Your task to perform on an android device: Open Google Chrome and open the bookmarks view Image 0: 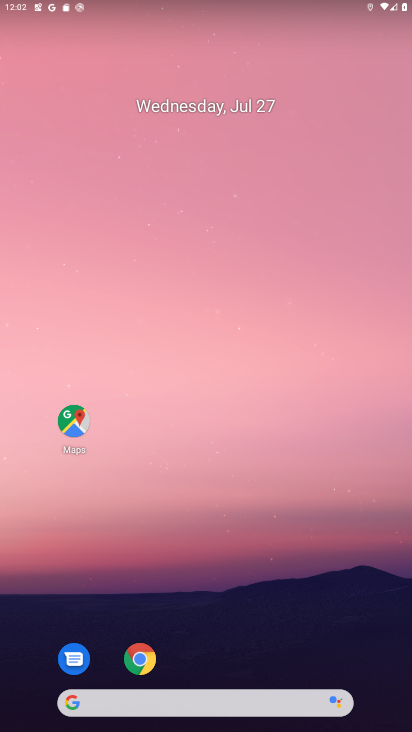
Step 0: drag from (262, 697) to (244, 65)
Your task to perform on an android device: Open Google Chrome and open the bookmarks view Image 1: 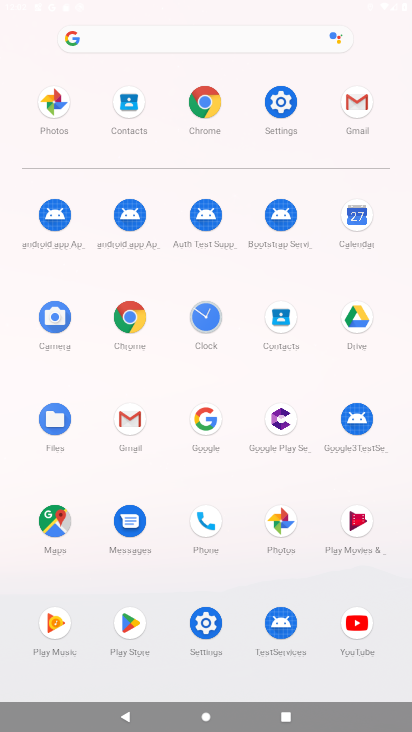
Step 1: click (131, 327)
Your task to perform on an android device: Open Google Chrome and open the bookmarks view Image 2: 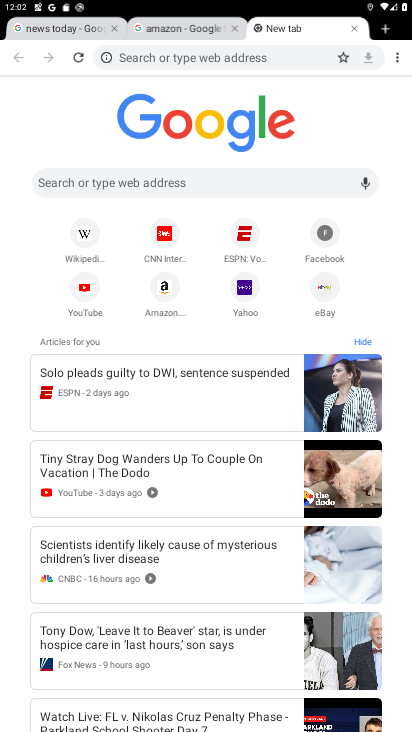
Step 2: task complete